Your task to perform on an android device: Clear the shopping cart on walmart.com. Add jbl flip 4 to the cart on walmart.com, then select checkout. Image 0: 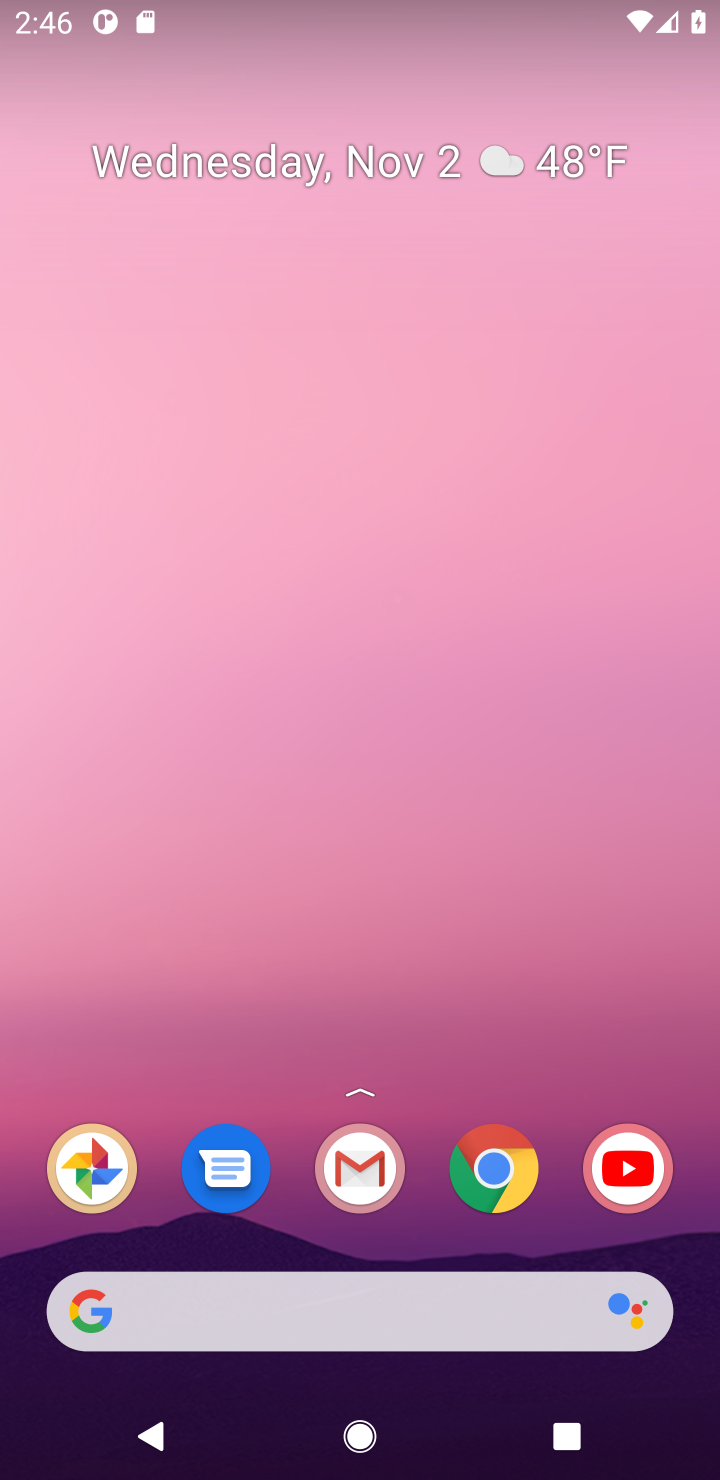
Step 0: drag from (347, 1225) to (296, 405)
Your task to perform on an android device: Clear the shopping cart on walmart.com. Add jbl flip 4 to the cart on walmart.com, then select checkout. Image 1: 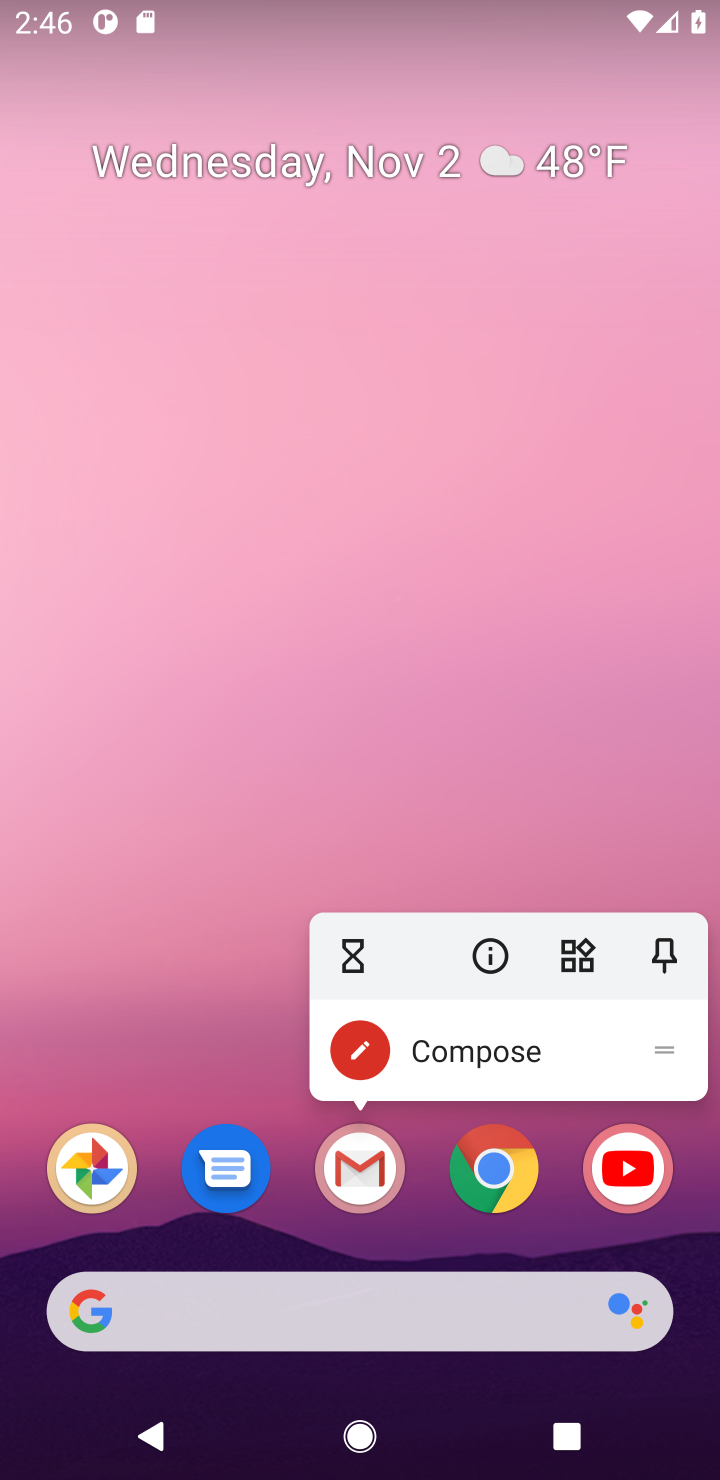
Step 1: click (324, 1315)
Your task to perform on an android device: Clear the shopping cart on walmart.com. Add jbl flip 4 to the cart on walmart.com, then select checkout. Image 2: 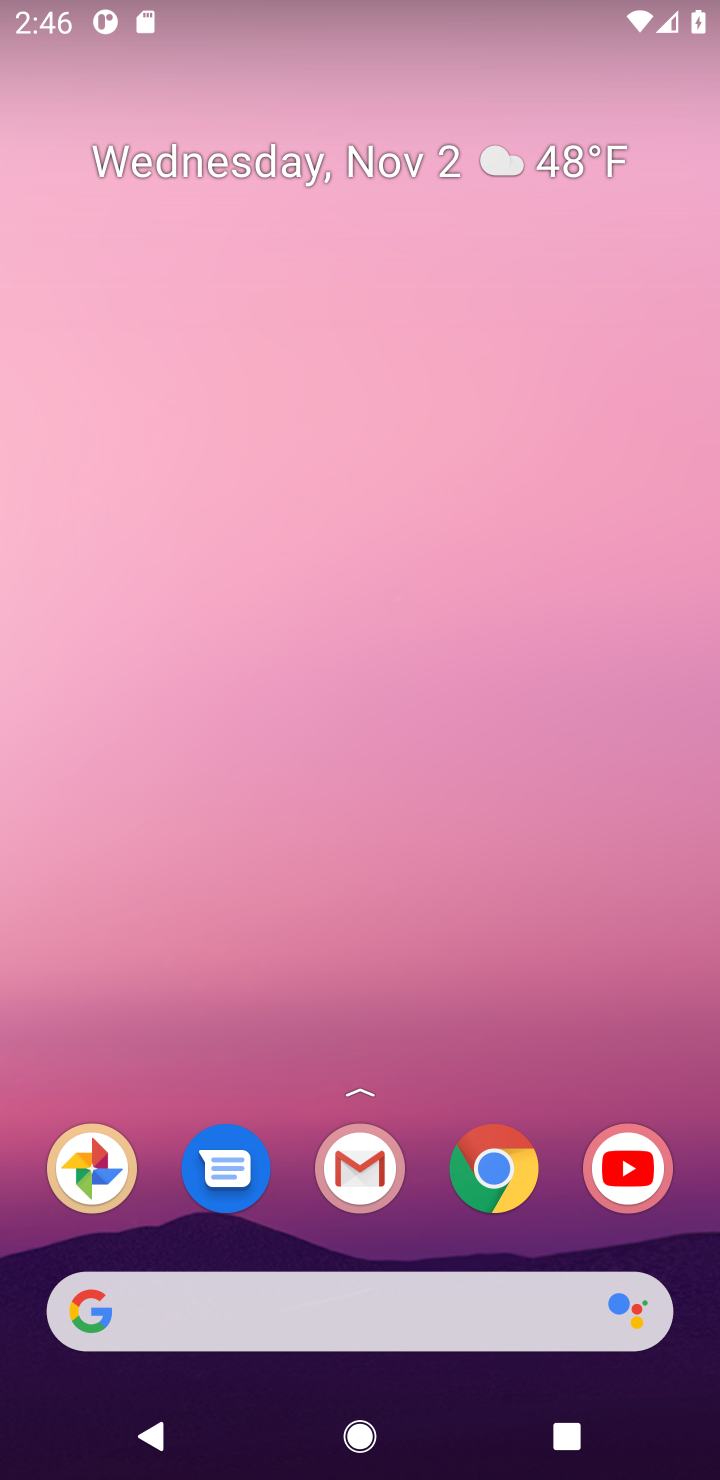
Step 2: click (193, 1321)
Your task to perform on an android device: Clear the shopping cart on walmart.com. Add jbl flip 4 to the cart on walmart.com, then select checkout. Image 3: 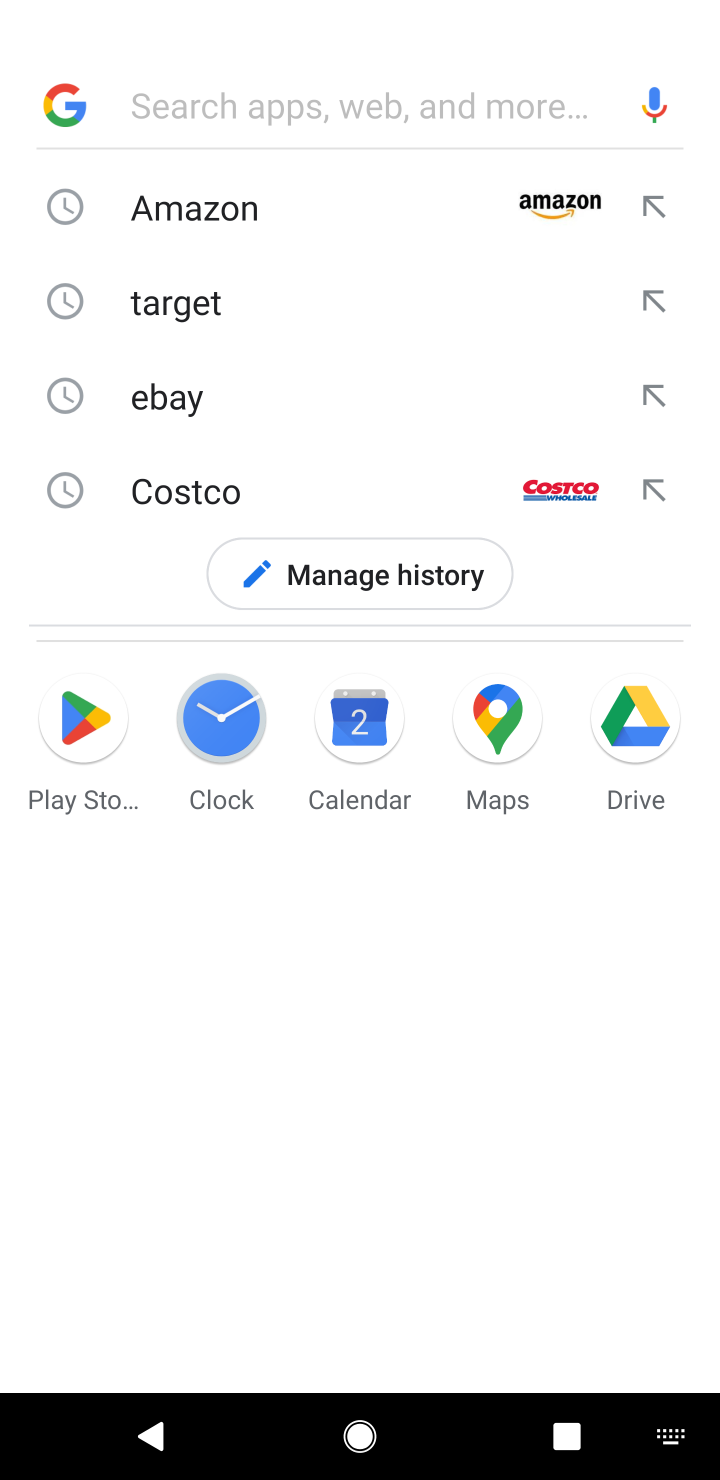
Step 3: type "walmart"
Your task to perform on an android device: Clear the shopping cart on walmart.com. Add jbl flip 4 to the cart on walmart.com, then select checkout. Image 4: 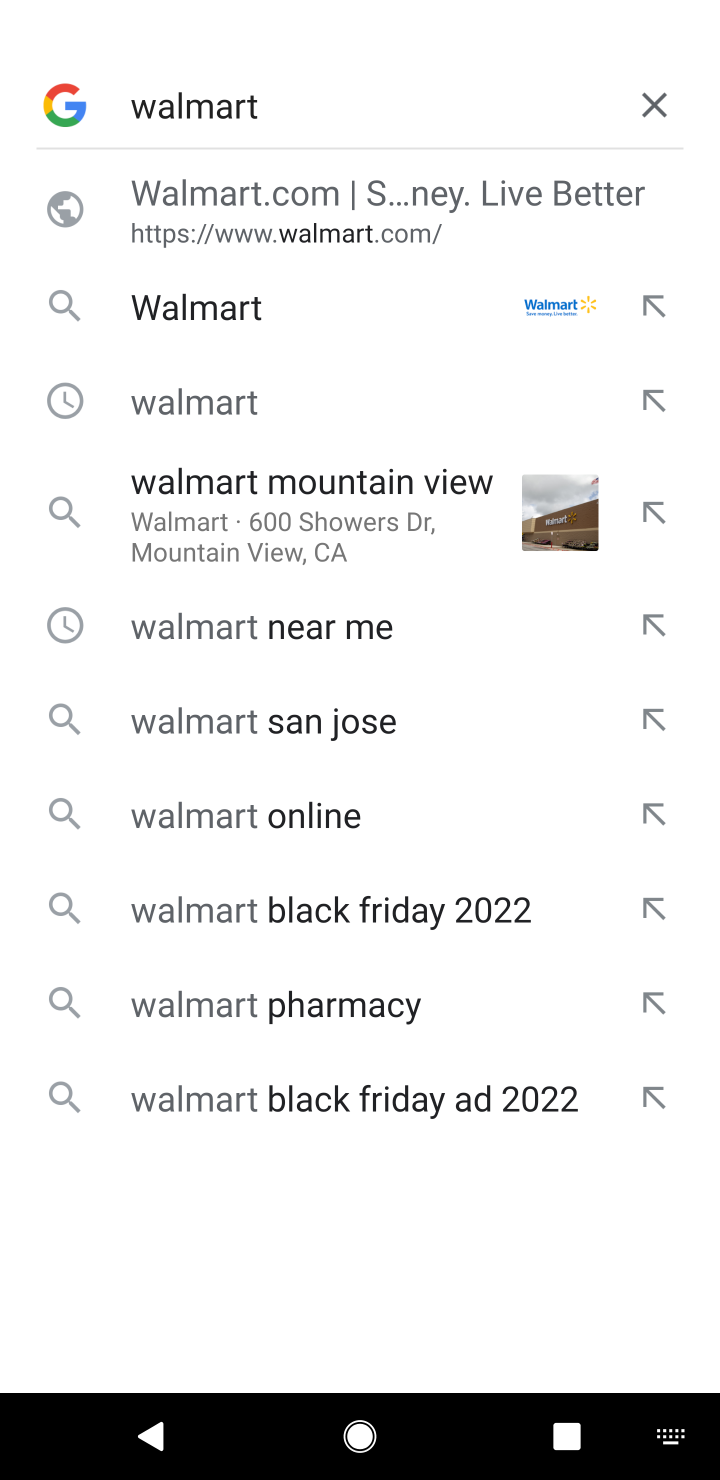
Step 4: click (203, 298)
Your task to perform on an android device: Clear the shopping cart on walmart.com. Add jbl flip 4 to the cart on walmart.com, then select checkout. Image 5: 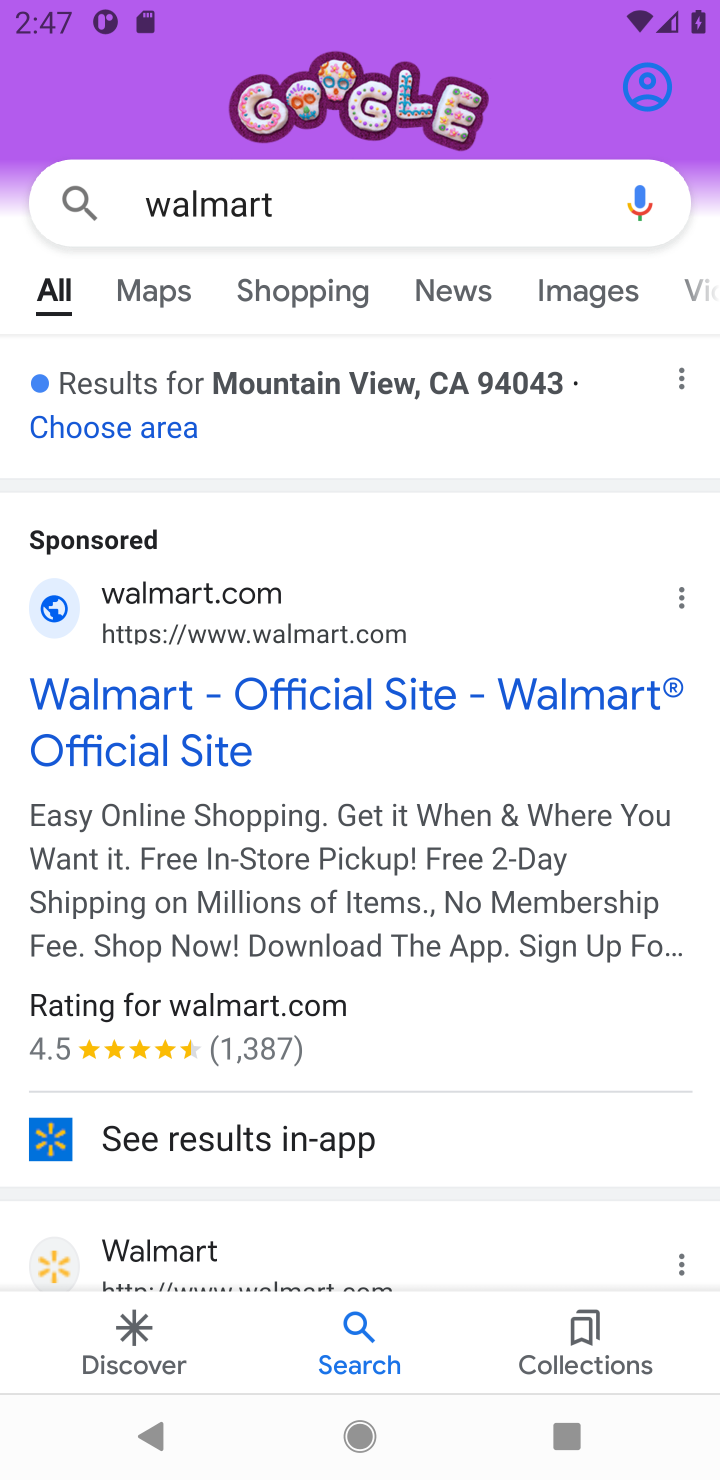
Step 5: click (153, 587)
Your task to perform on an android device: Clear the shopping cart on walmart.com. Add jbl flip 4 to the cart on walmart.com, then select checkout. Image 6: 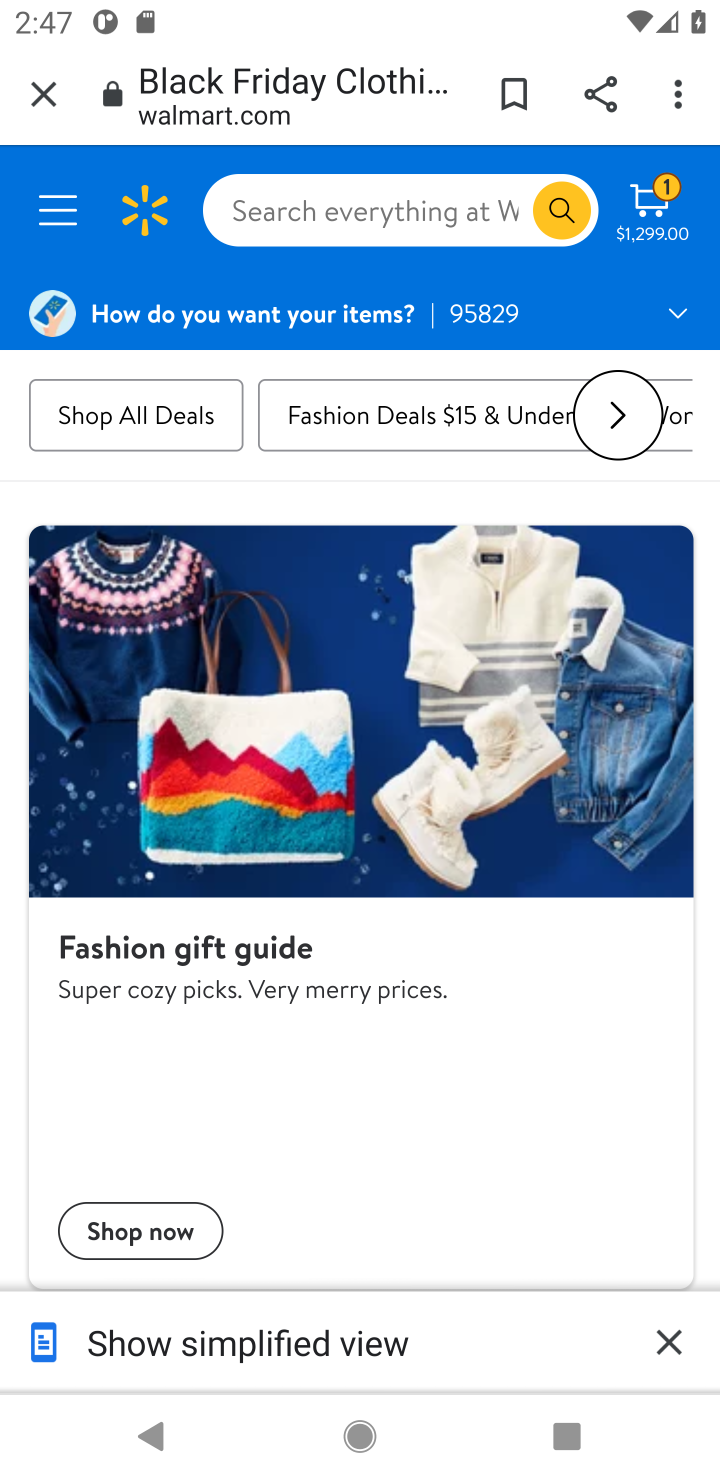
Step 6: click (385, 190)
Your task to perform on an android device: Clear the shopping cart on walmart.com. Add jbl flip 4 to the cart on walmart.com, then select checkout. Image 7: 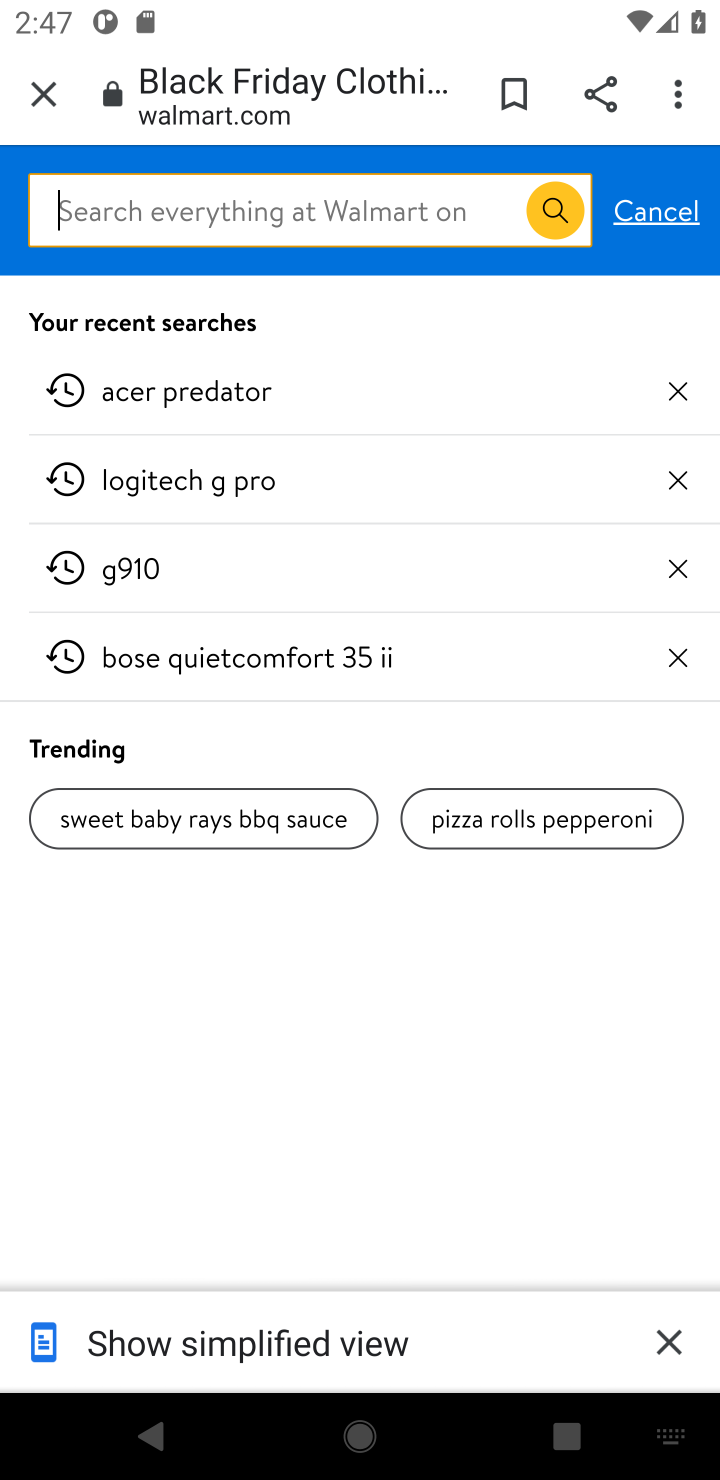
Step 7: click (647, 222)
Your task to perform on an android device: Clear the shopping cart on walmart.com. Add jbl flip 4 to the cart on walmart.com, then select checkout. Image 8: 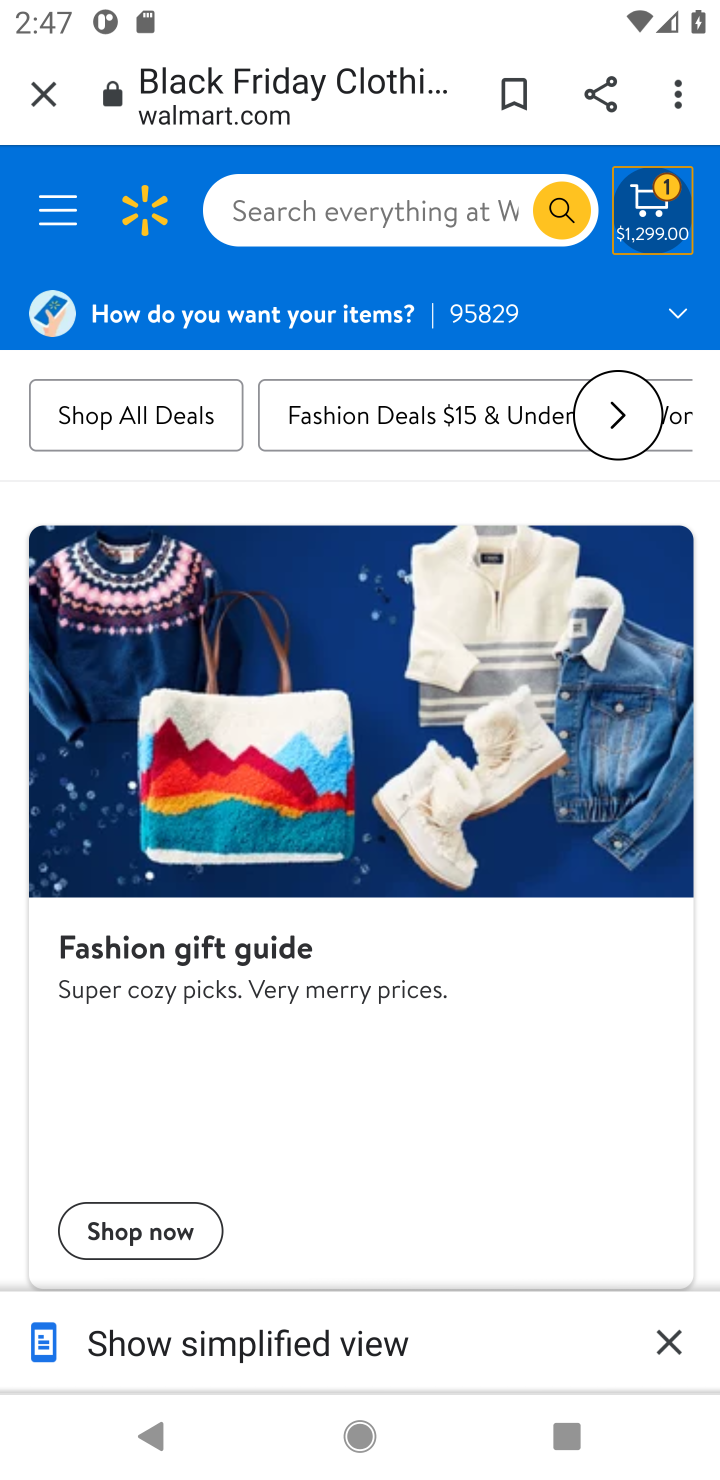
Step 8: click (658, 223)
Your task to perform on an android device: Clear the shopping cart on walmart.com. Add jbl flip 4 to the cart on walmart.com, then select checkout. Image 9: 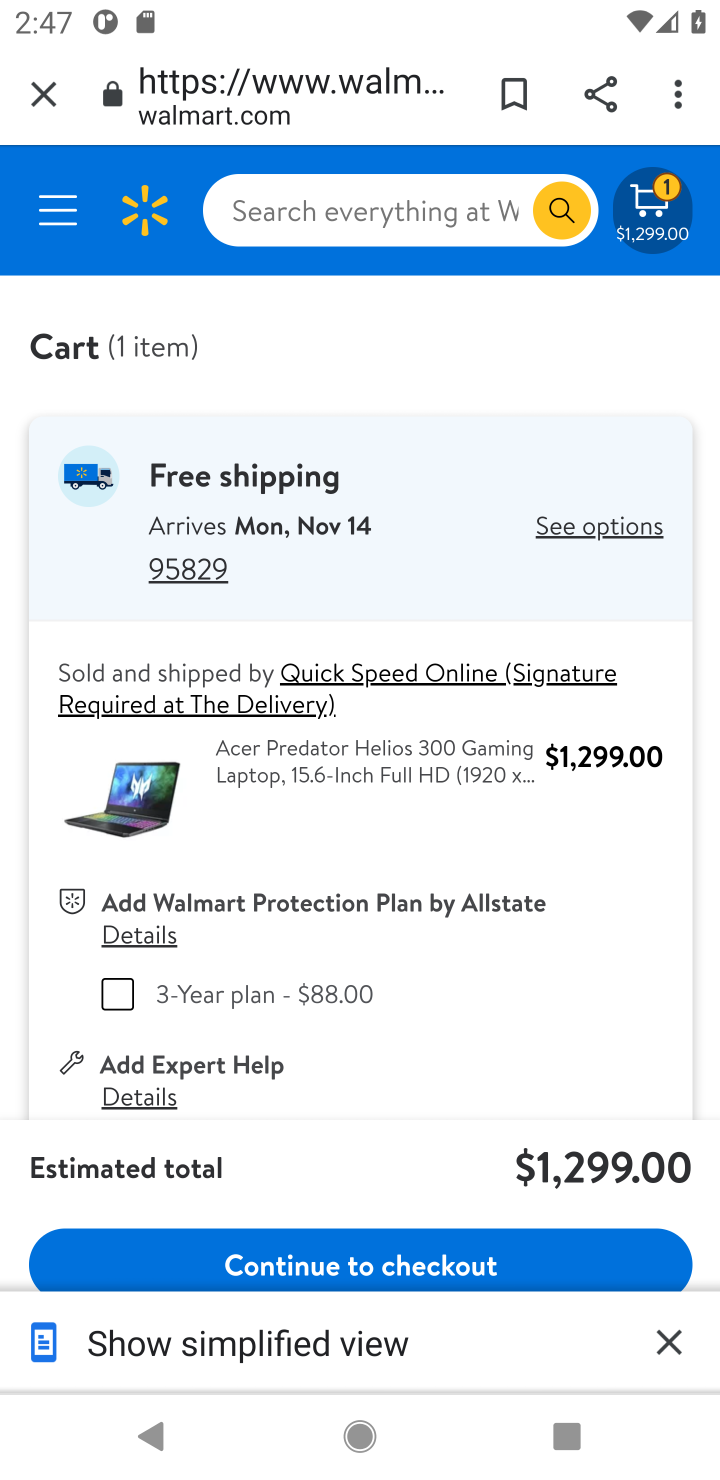
Step 9: drag from (309, 997) to (327, 537)
Your task to perform on an android device: Clear the shopping cart on walmart.com. Add jbl flip 4 to the cart on walmart.com, then select checkout. Image 10: 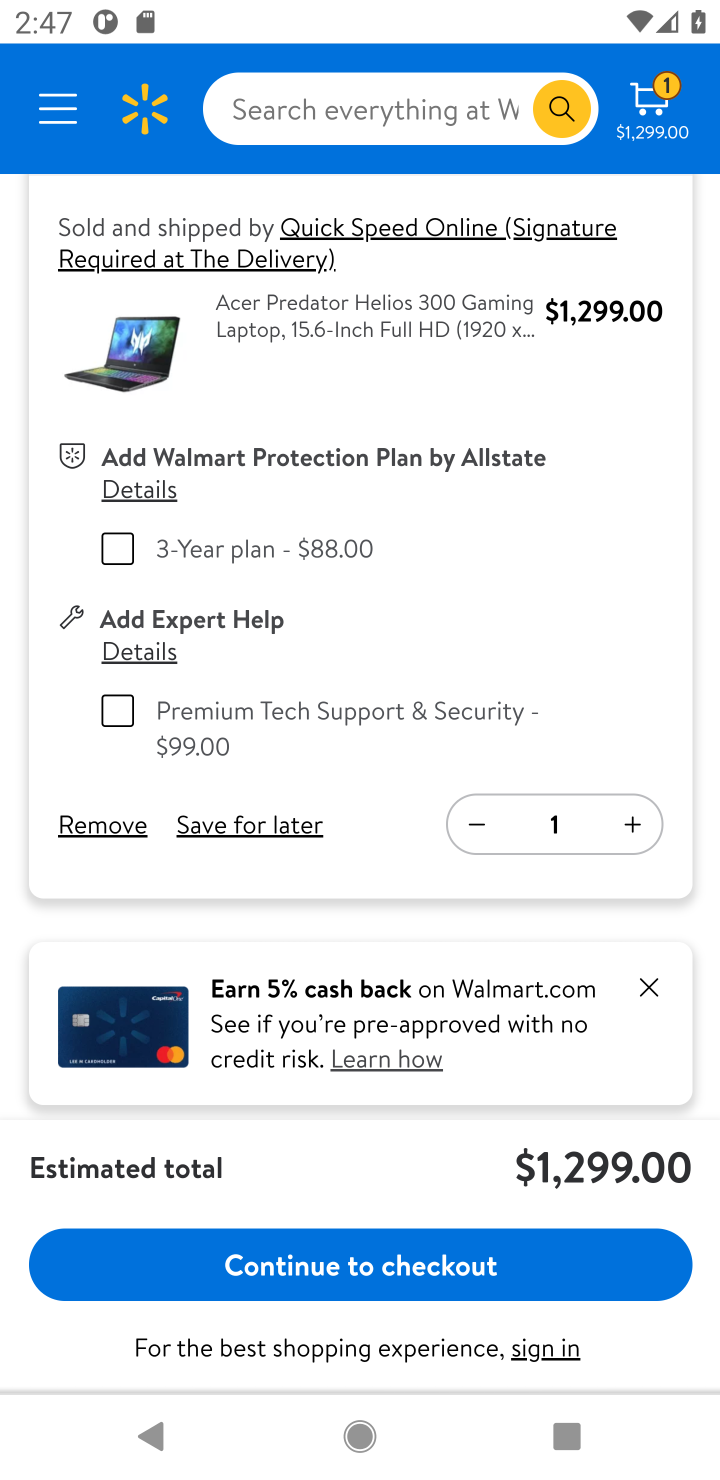
Step 10: click (103, 820)
Your task to perform on an android device: Clear the shopping cart on walmart.com. Add jbl flip 4 to the cart on walmart.com, then select checkout. Image 11: 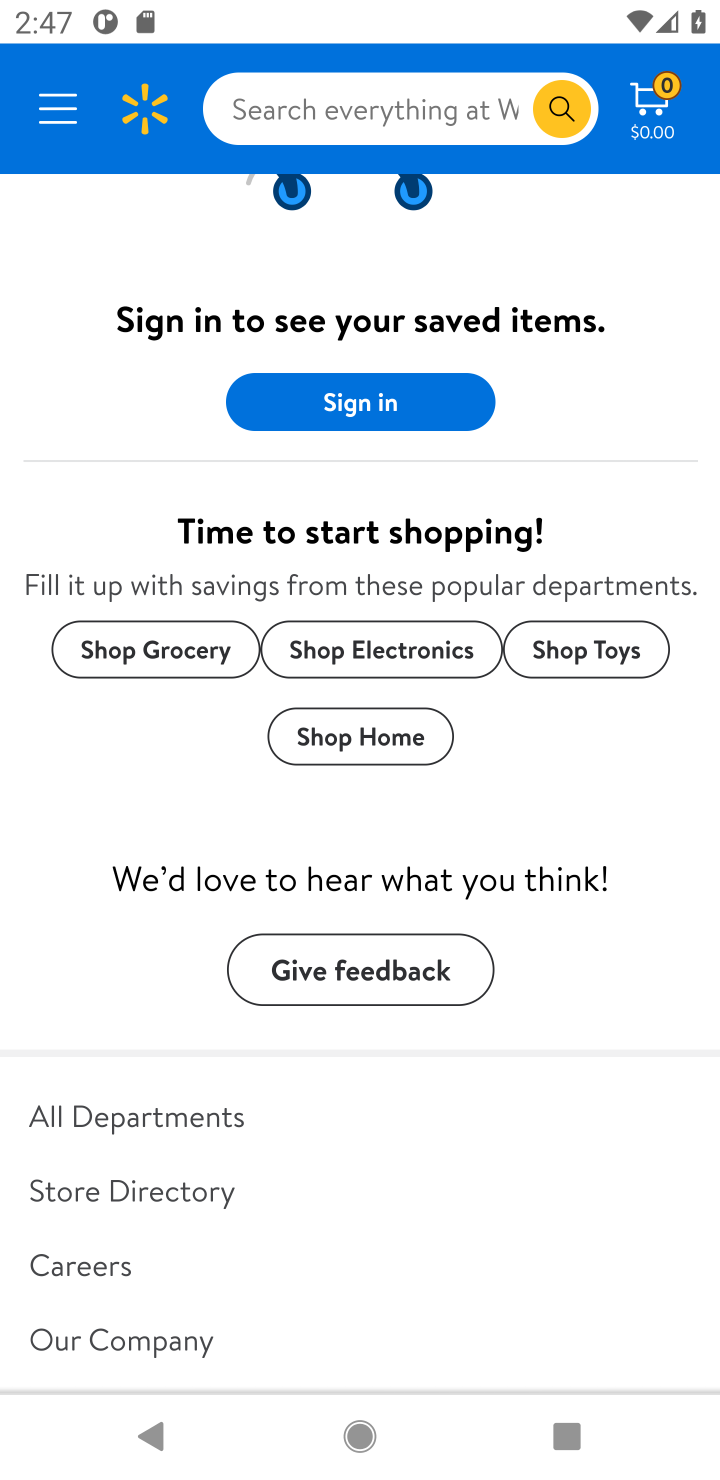
Step 11: click (350, 112)
Your task to perform on an android device: Clear the shopping cart on walmart.com. Add jbl flip 4 to the cart on walmart.com, then select checkout. Image 12: 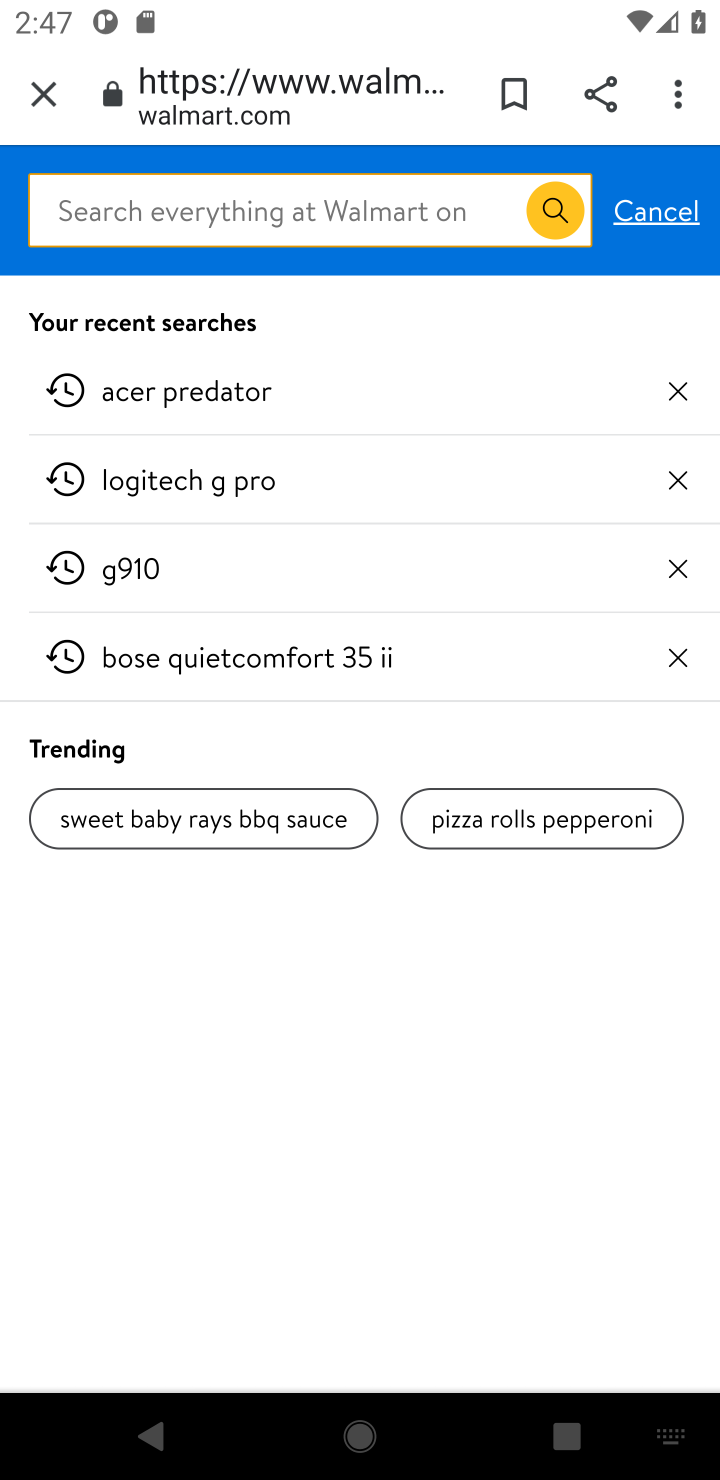
Step 12: type " jbl flip 4 "
Your task to perform on an android device: Clear the shopping cart on walmart.com. Add jbl flip 4 to the cart on walmart.com, then select checkout. Image 13: 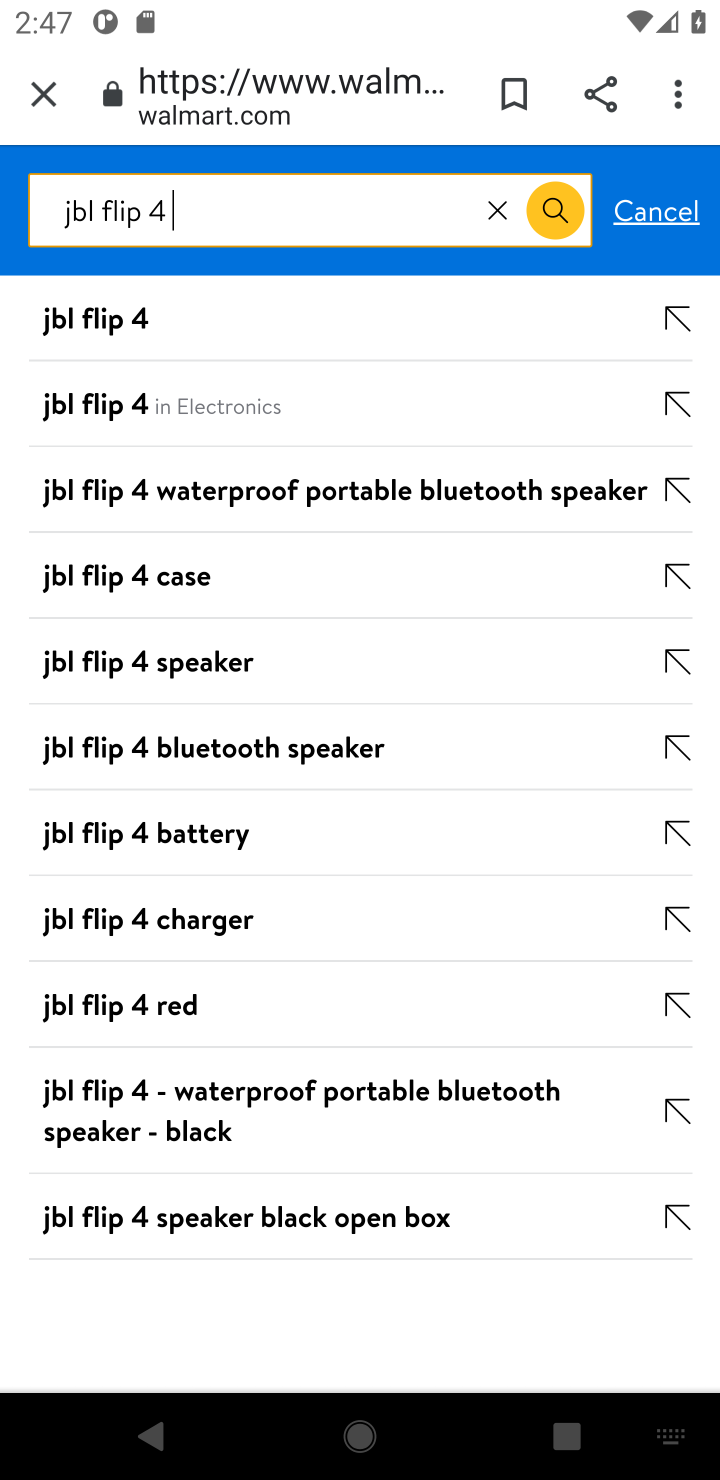
Step 13: click (53, 318)
Your task to perform on an android device: Clear the shopping cart on walmart.com. Add jbl flip 4 to the cart on walmart.com, then select checkout. Image 14: 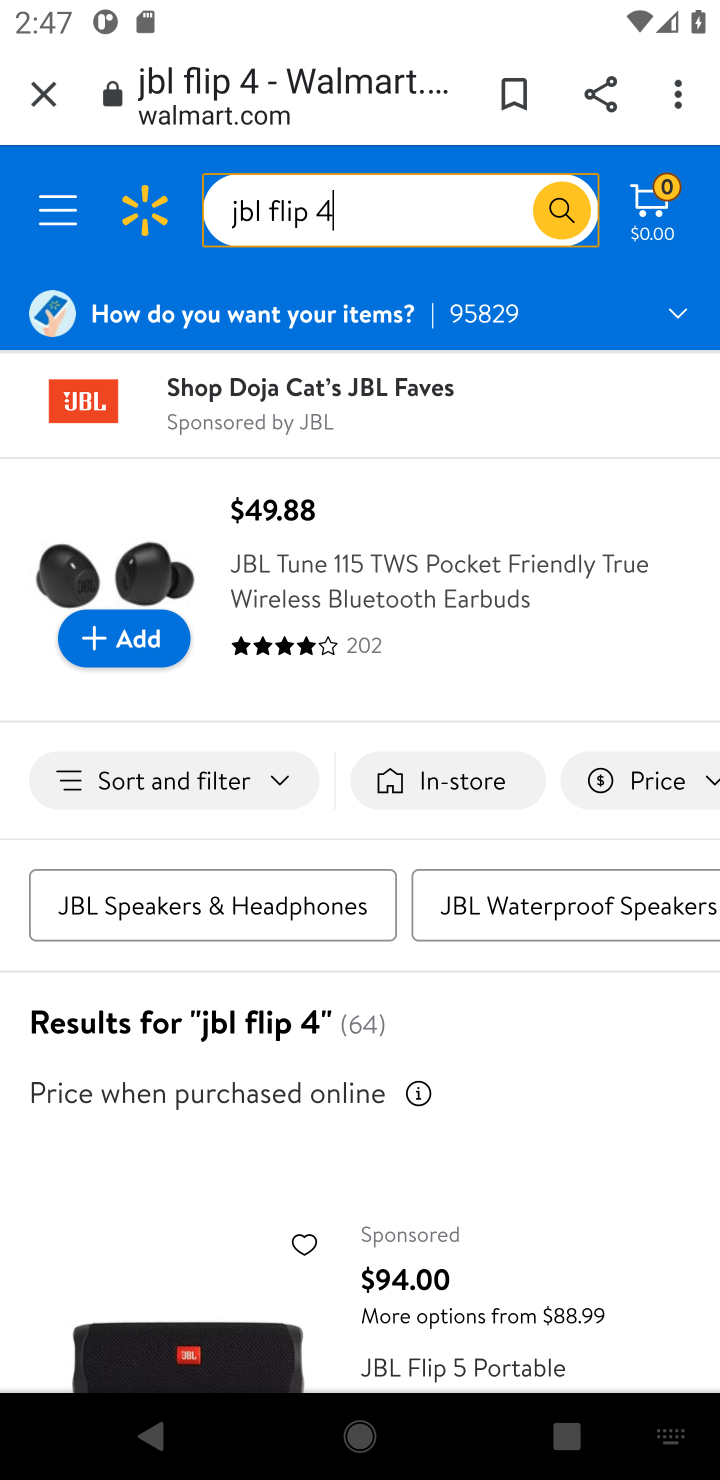
Step 14: drag from (488, 1029) to (482, 555)
Your task to perform on an android device: Clear the shopping cart on walmart.com. Add jbl flip 4 to the cart on walmart.com, then select checkout. Image 15: 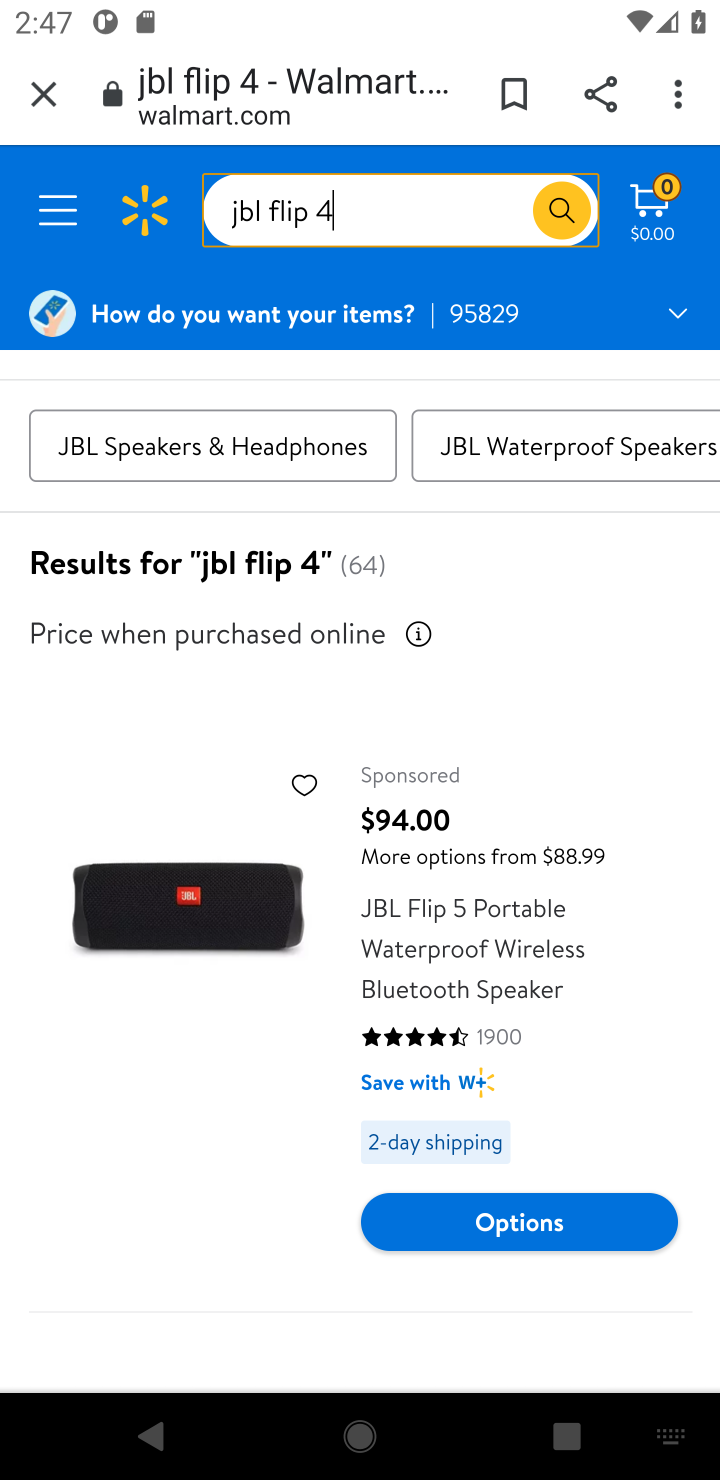
Step 15: click (467, 1240)
Your task to perform on an android device: Clear the shopping cart on walmart.com. Add jbl flip 4 to the cart on walmart.com, then select checkout. Image 16: 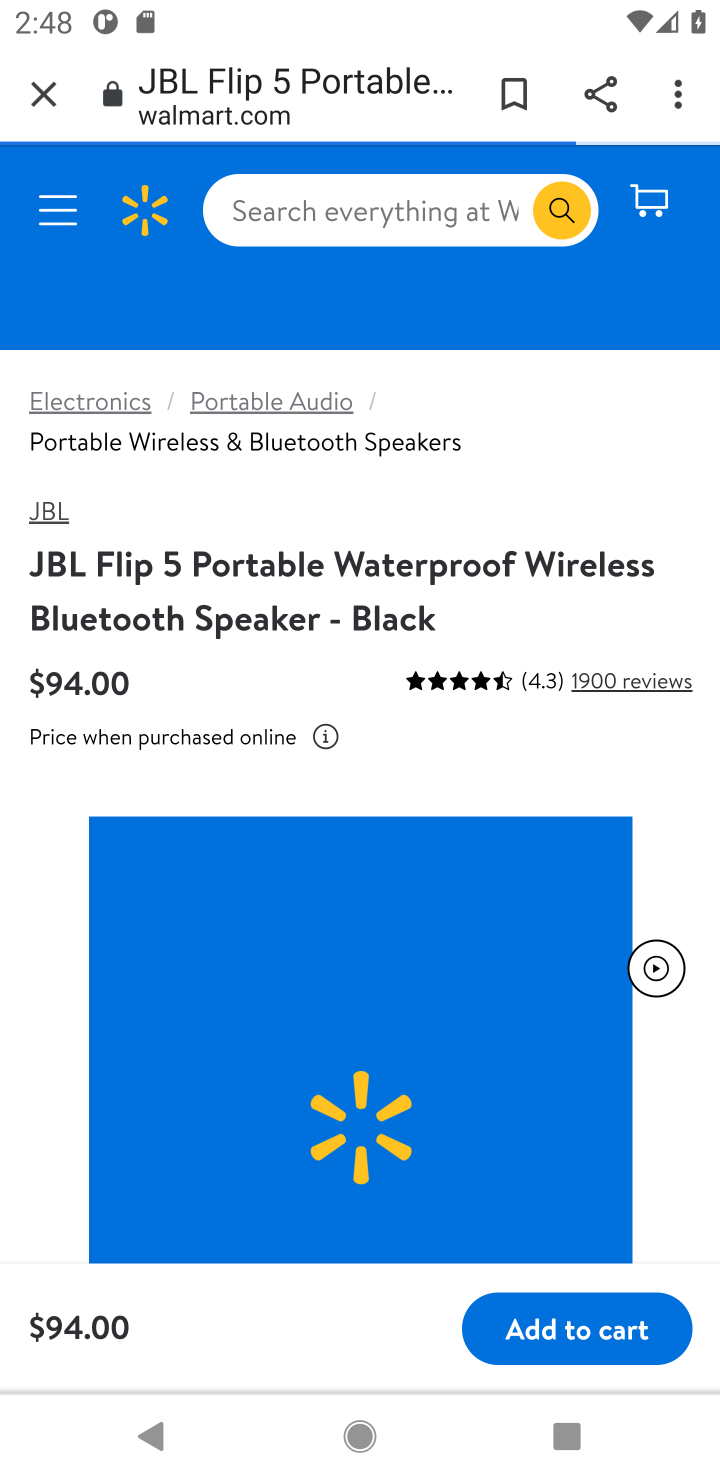
Step 16: click (524, 1321)
Your task to perform on an android device: Clear the shopping cart on walmart.com. Add jbl flip 4 to the cart on walmart.com, then select checkout. Image 17: 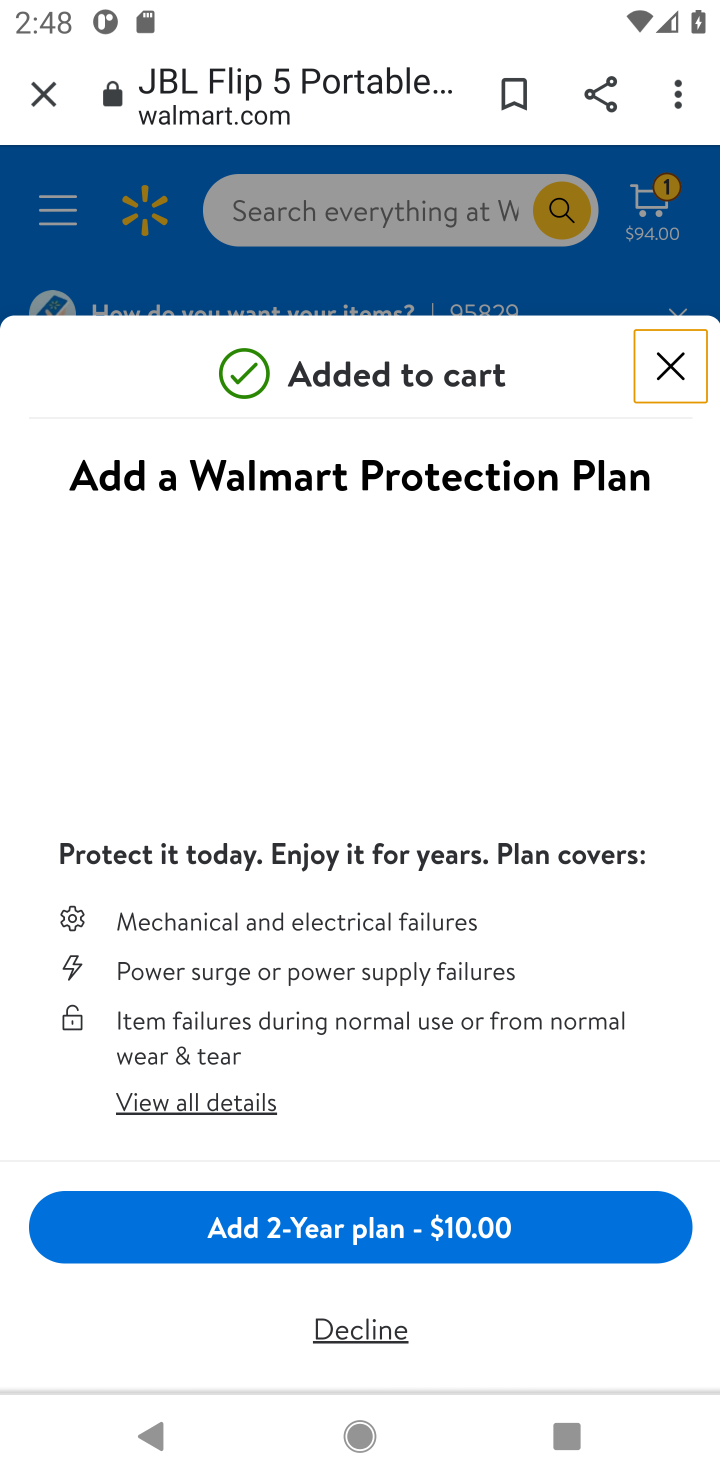
Step 17: click (355, 1329)
Your task to perform on an android device: Clear the shopping cart on walmart.com. Add jbl flip 4 to the cart on walmart.com, then select checkout. Image 18: 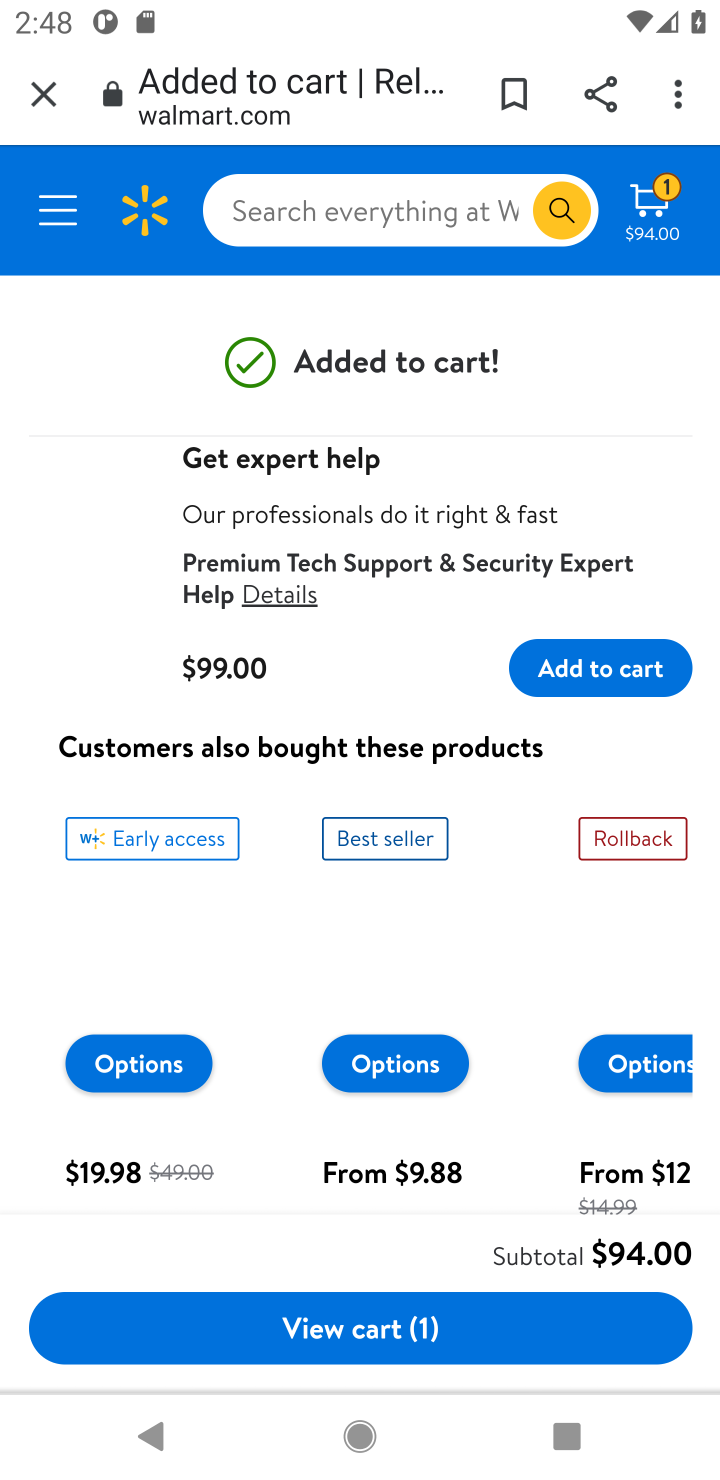
Step 18: drag from (499, 938) to (499, 715)
Your task to perform on an android device: Clear the shopping cart on walmart.com. Add jbl flip 4 to the cart on walmart.com, then select checkout. Image 19: 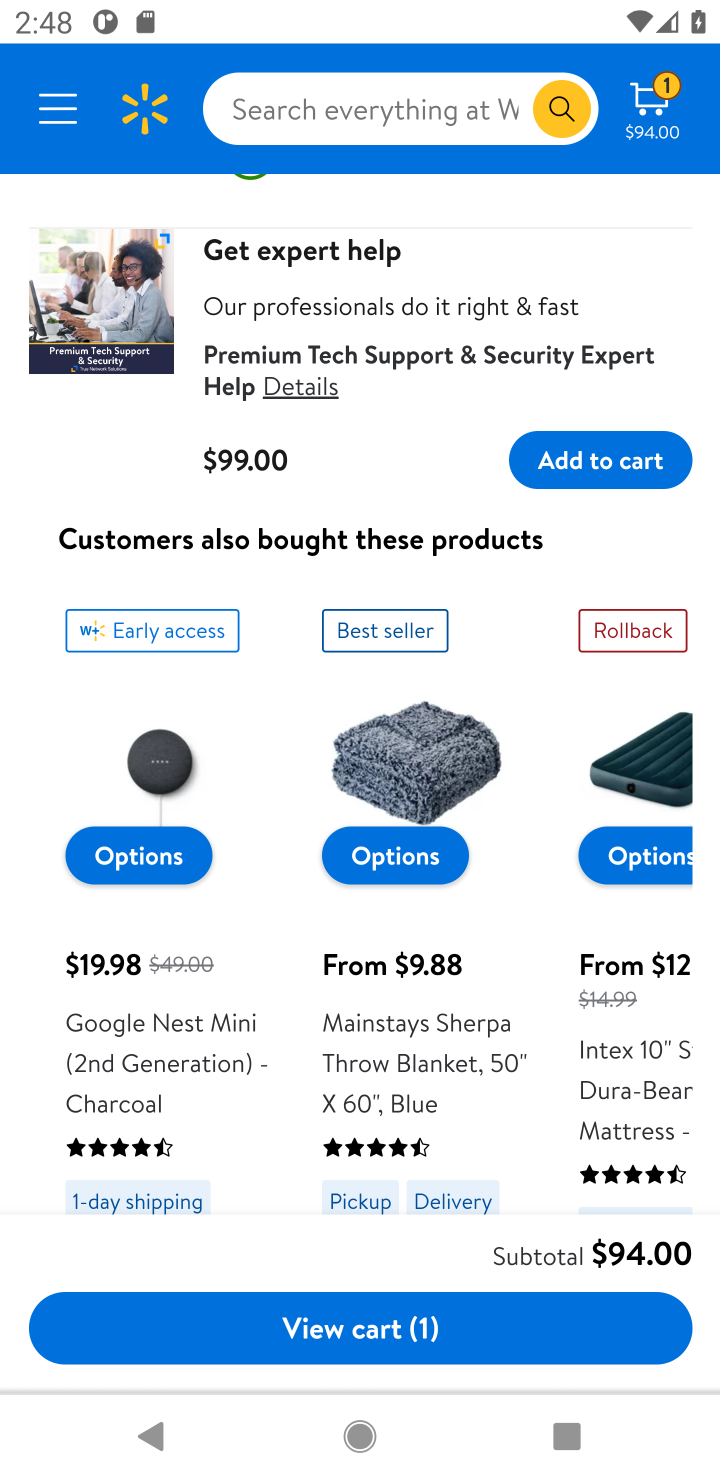
Step 19: click (358, 1324)
Your task to perform on an android device: Clear the shopping cart on walmart.com. Add jbl flip 4 to the cart on walmart.com, then select checkout. Image 20: 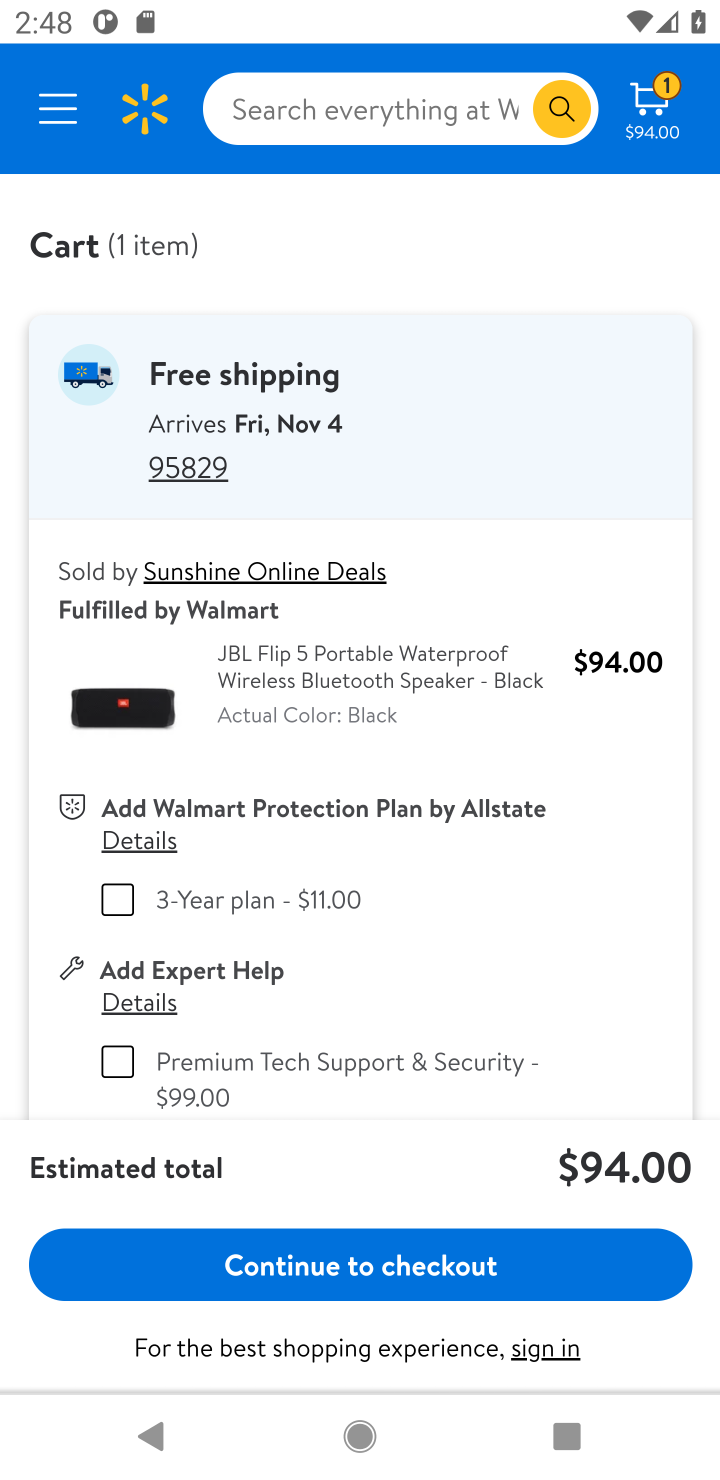
Step 20: click (447, 1279)
Your task to perform on an android device: Clear the shopping cart on walmart.com. Add jbl flip 4 to the cart on walmart.com, then select checkout. Image 21: 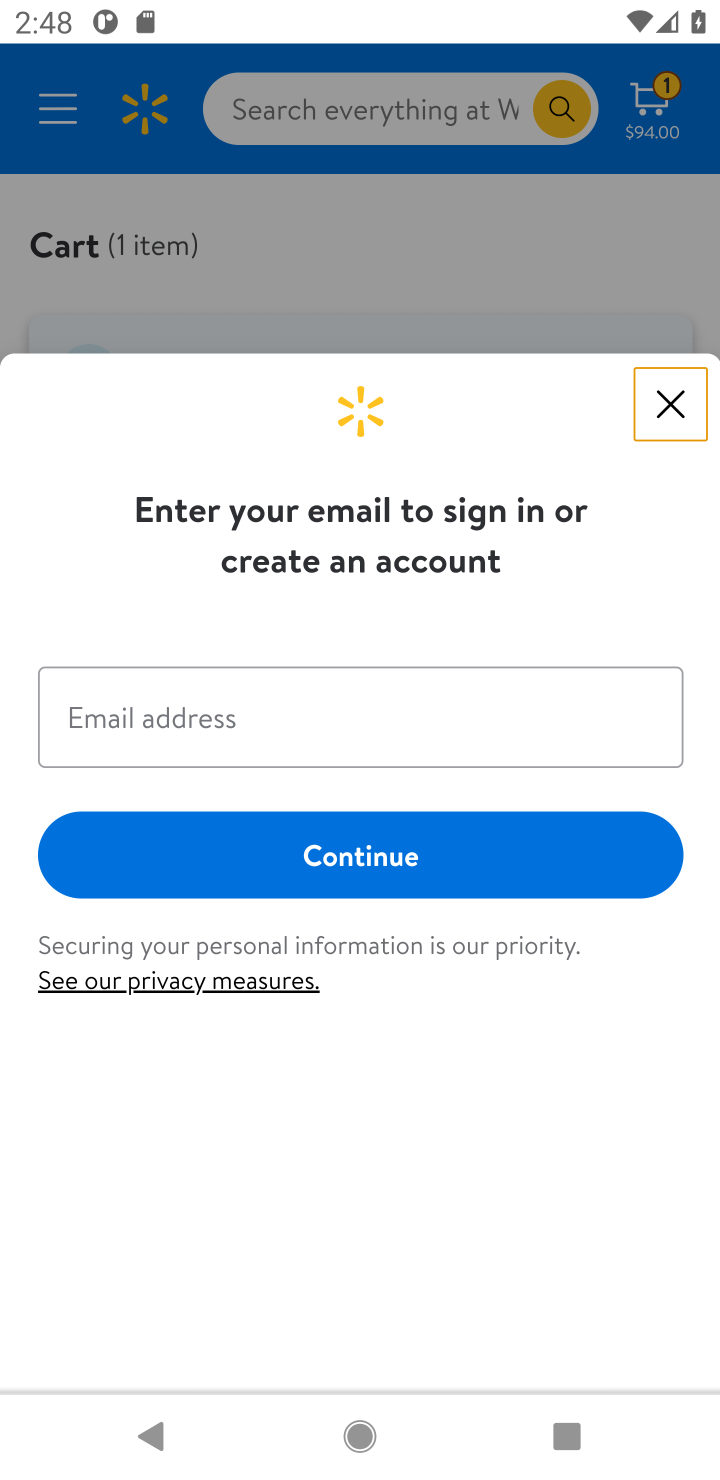
Step 21: task complete